Your task to perform on an android device: Open Google Image 0: 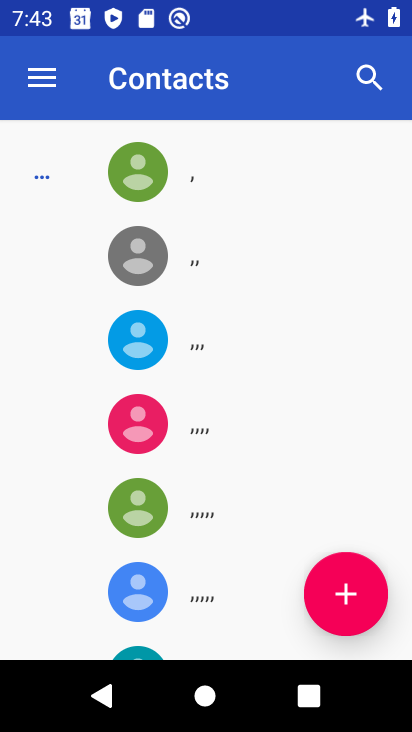
Step 0: press home button
Your task to perform on an android device: Open Google Image 1: 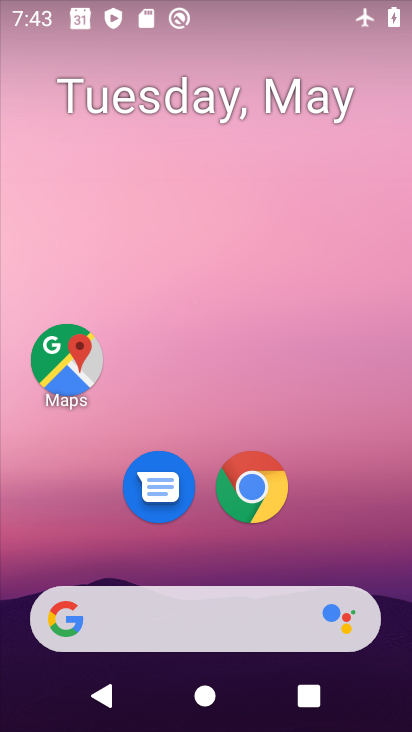
Step 1: drag from (371, 552) to (363, 208)
Your task to perform on an android device: Open Google Image 2: 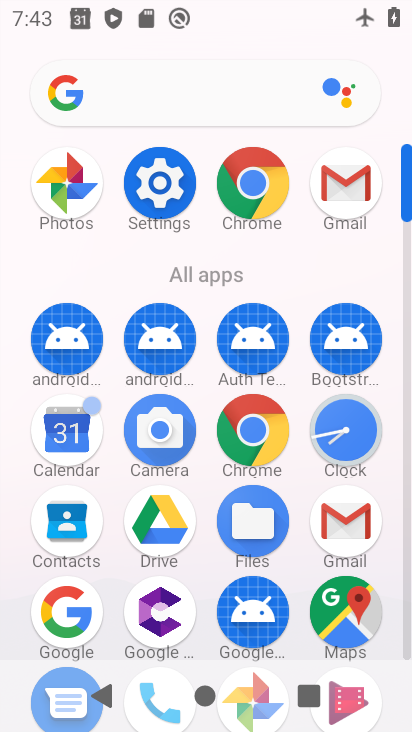
Step 2: drag from (383, 565) to (375, 311)
Your task to perform on an android device: Open Google Image 3: 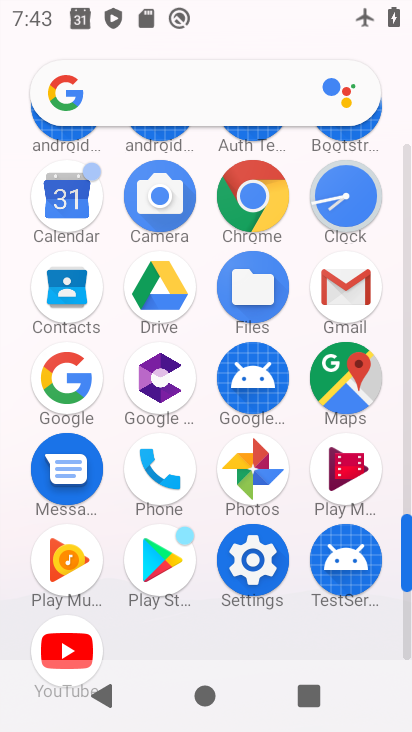
Step 3: click (61, 385)
Your task to perform on an android device: Open Google Image 4: 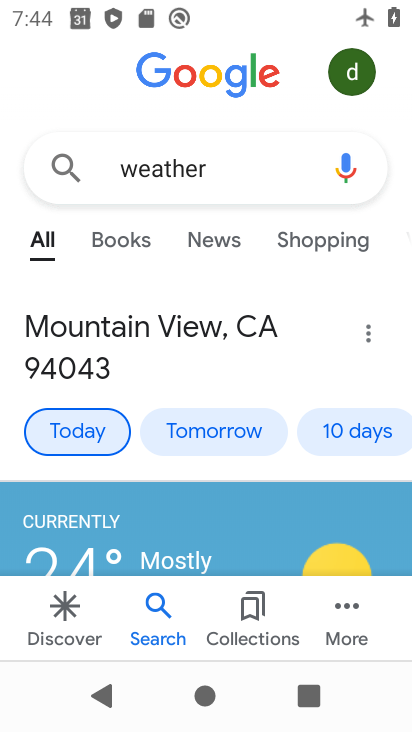
Step 4: task complete